Your task to perform on an android device: Clear all items from cart on target. Add macbook to the cart on target Image 0: 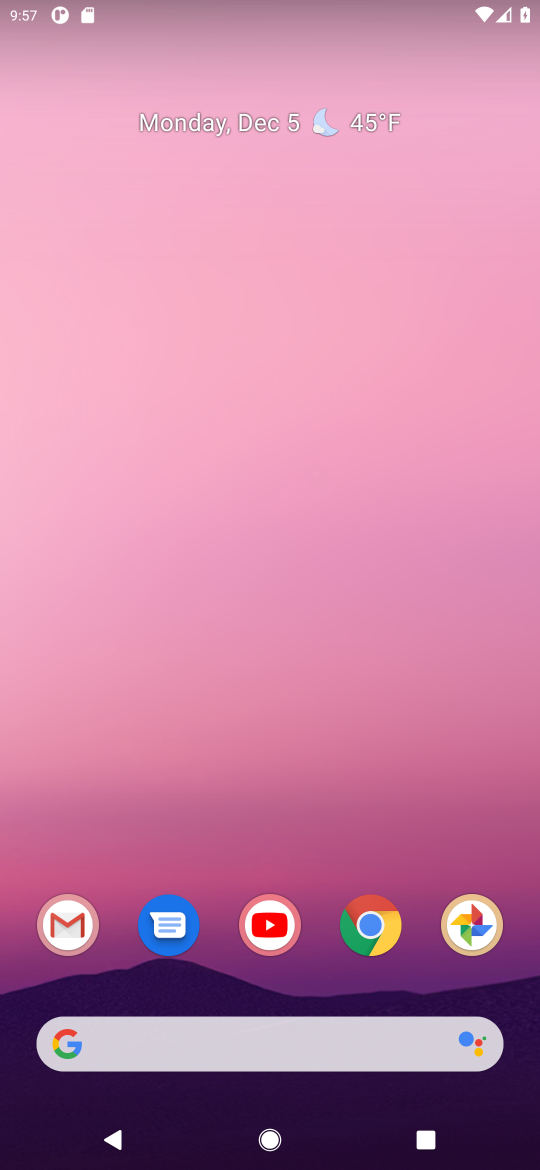
Step 0: click (373, 929)
Your task to perform on an android device: Clear all items from cart on target. Add macbook to the cart on target Image 1: 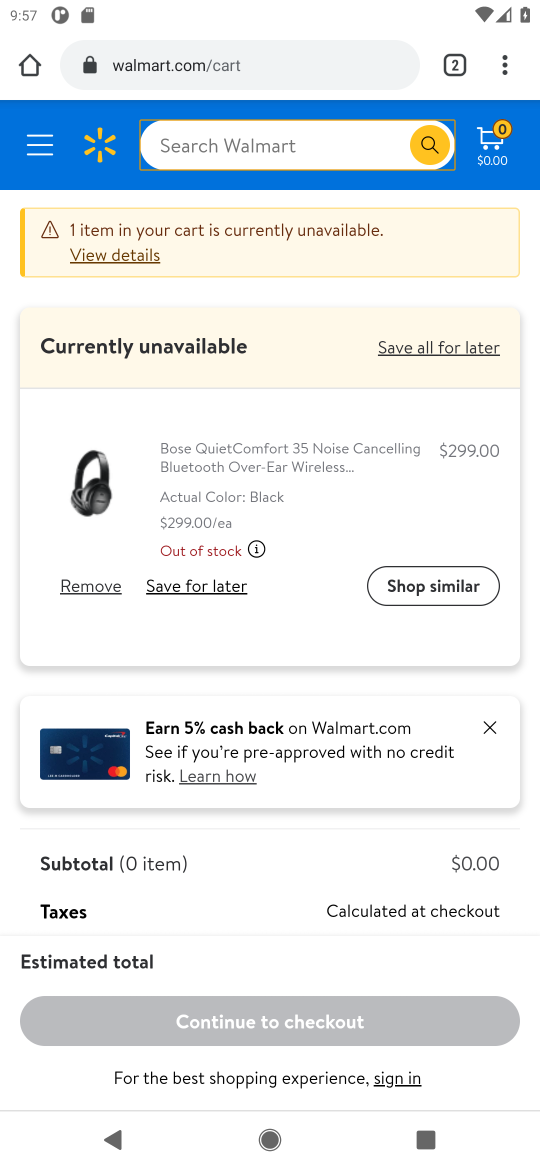
Step 1: click (147, 67)
Your task to perform on an android device: Clear all items from cart on target. Add macbook to the cart on target Image 2: 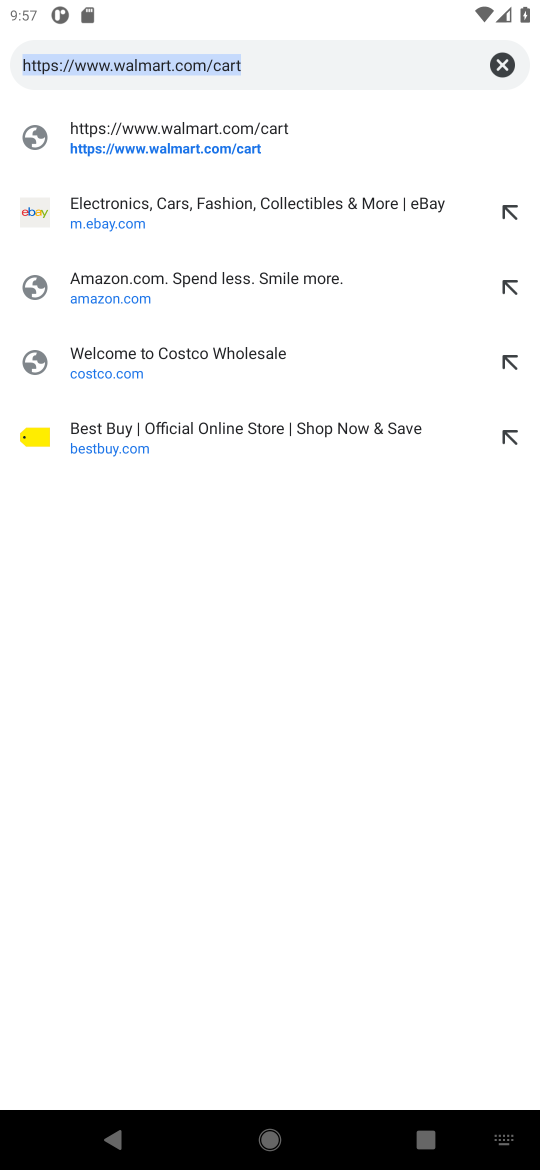
Step 2: type "target.com"
Your task to perform on an android device: Clear all items from cart on target. Add macbook to the cart on target Image 3: 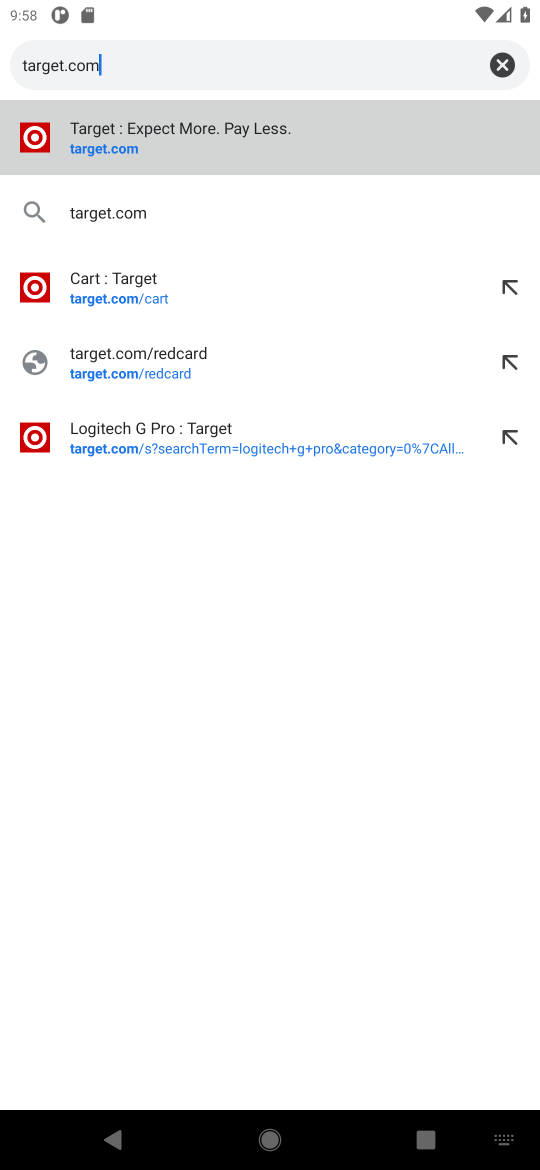
Step 3: click (96, 155)
Your task to perform on an android device: Clear all items from cart on target. Add macbook to the cart on target Image 4: 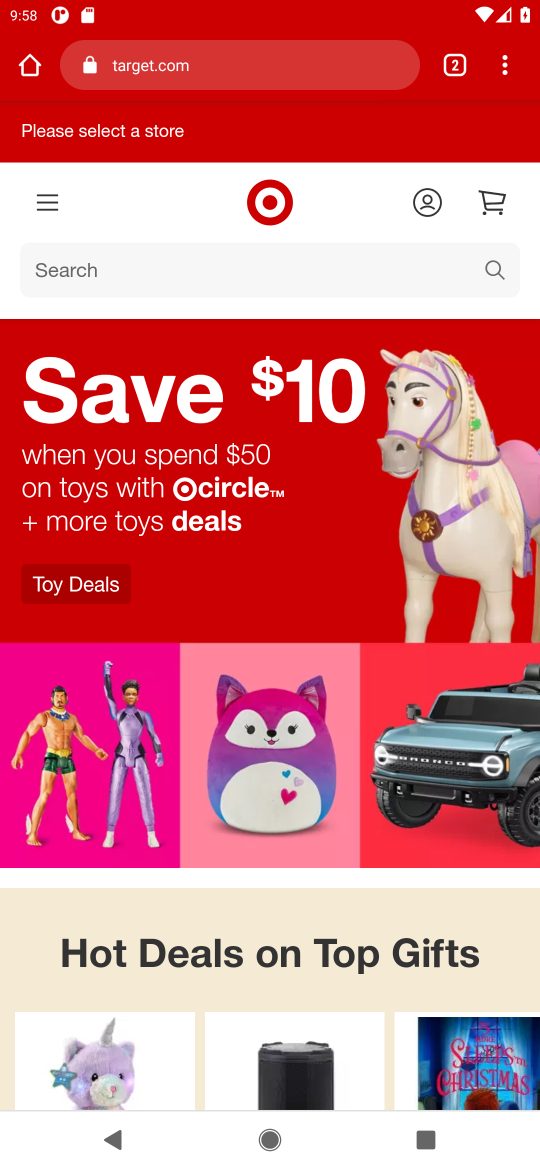
Step 4: click (485, 205)
Your task to perform on an android device: Clear all items from cart on target. Add macbook to the cart on target Image 5: 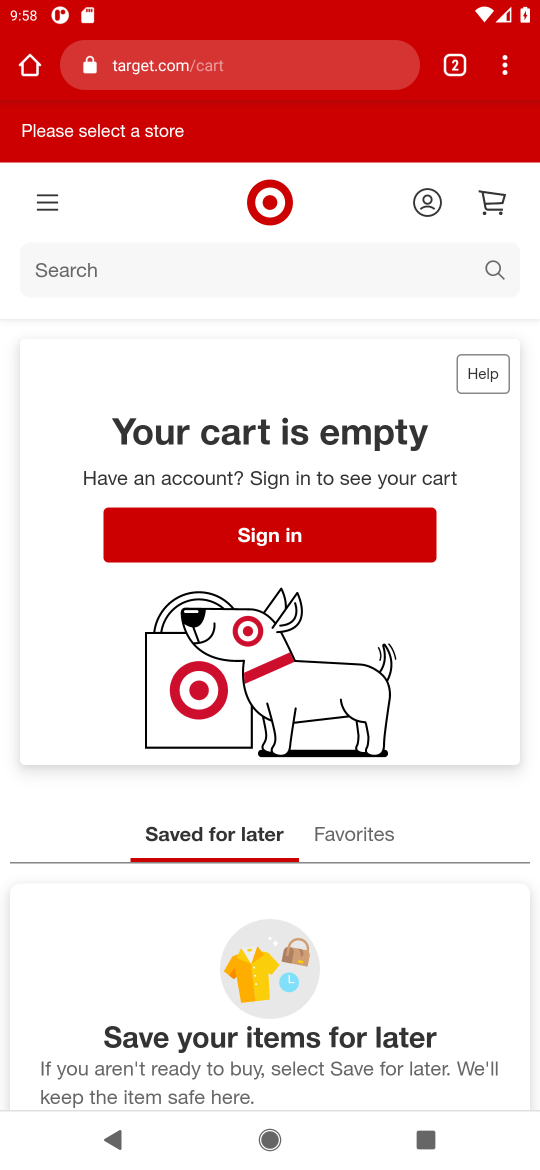
Step 5: click (62, 277)
Your task to perform on an android device: Clear all items from cart on target. Add macbook to the cart on target Image 6: 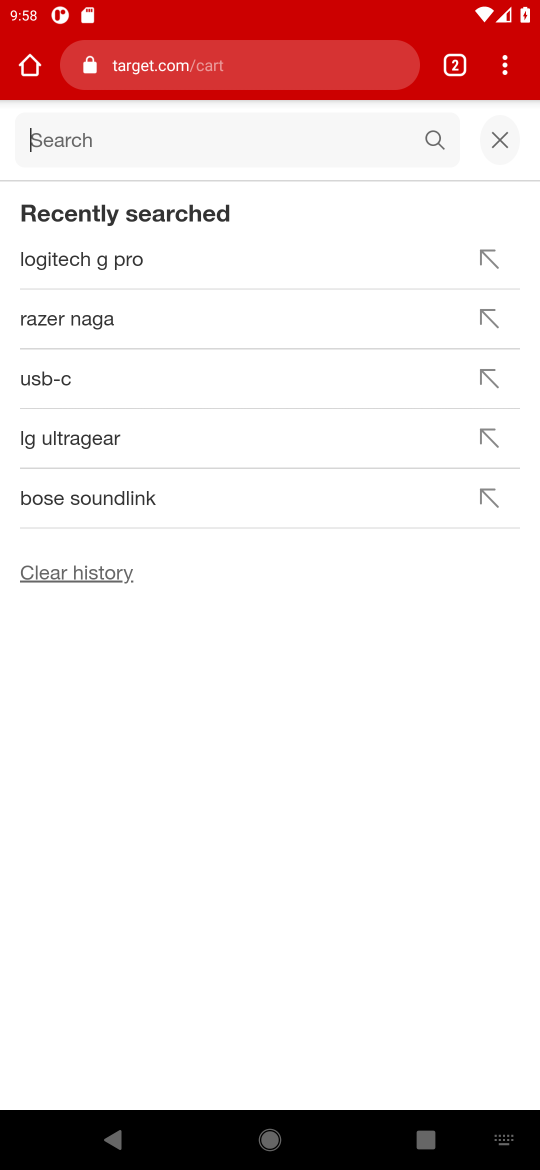
Step 6: type "macbook"
Your task to perform on an android device: Clear all items from cart on target. Add macbook to the cart on target Image 7: 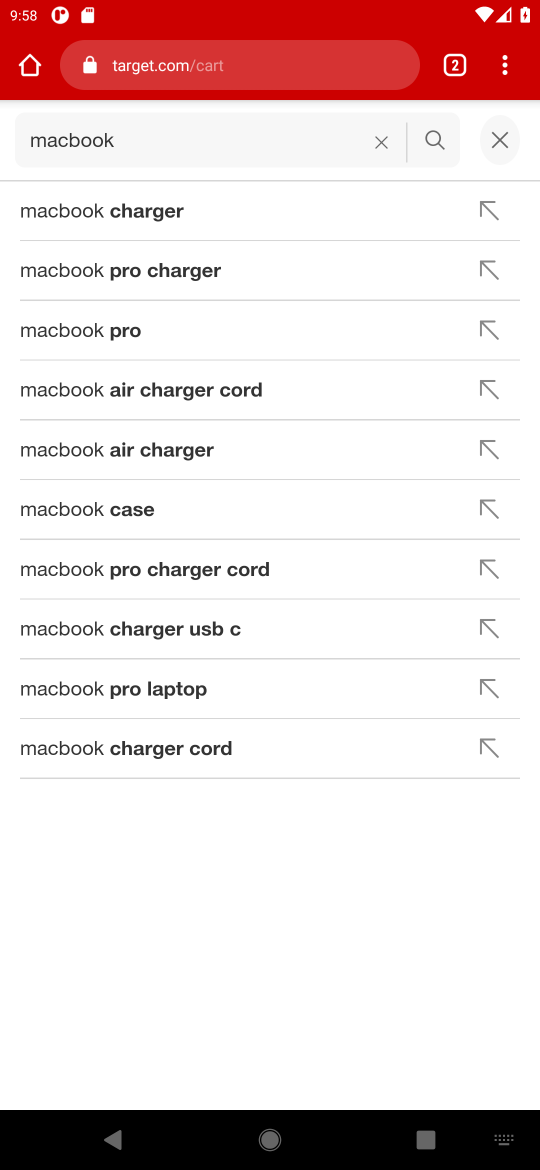
Step 7: click (435, 144)
Your task to perform on an android device: Clear all items from cart on target. Add macbook to the cart on target Image 8: 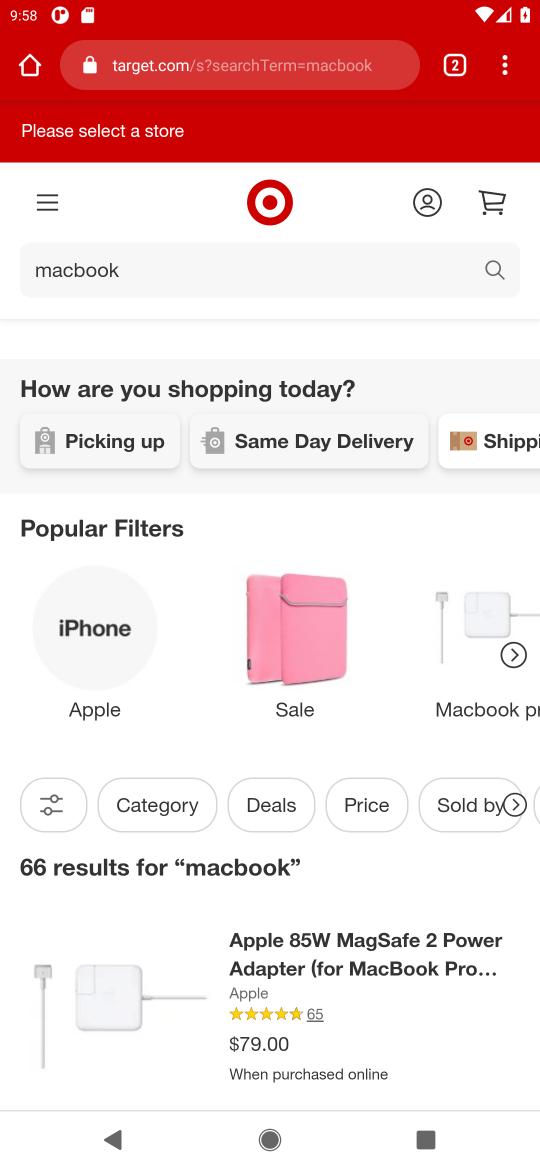
Step 8: drag from (305, 851) to (309, 506)
Your task to perform on an android device: Clear all items from cart on target. Add macbook to the cart on target Image 9: 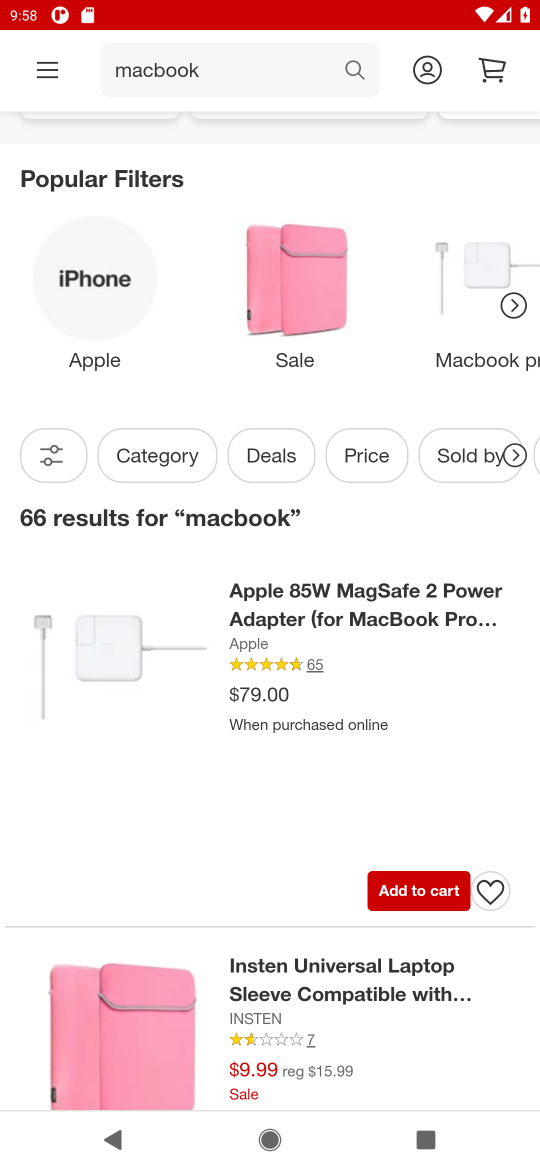
Step 9: drag from (255, 758) to (257, 537)
Your task to perform on an android device: Clear all items from cart on target. Add macbook to the cart on target Image 10: 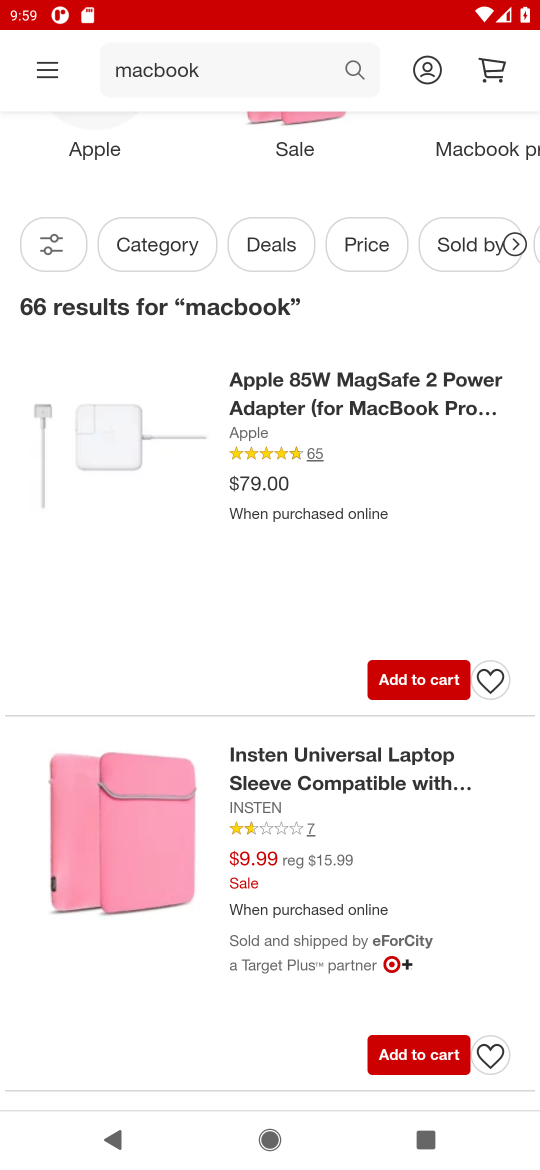
Step 10: click (407, 684)
Your task to perform on an android device: Clear all items from cart on target. Add macbook to the cart on target Image 11: 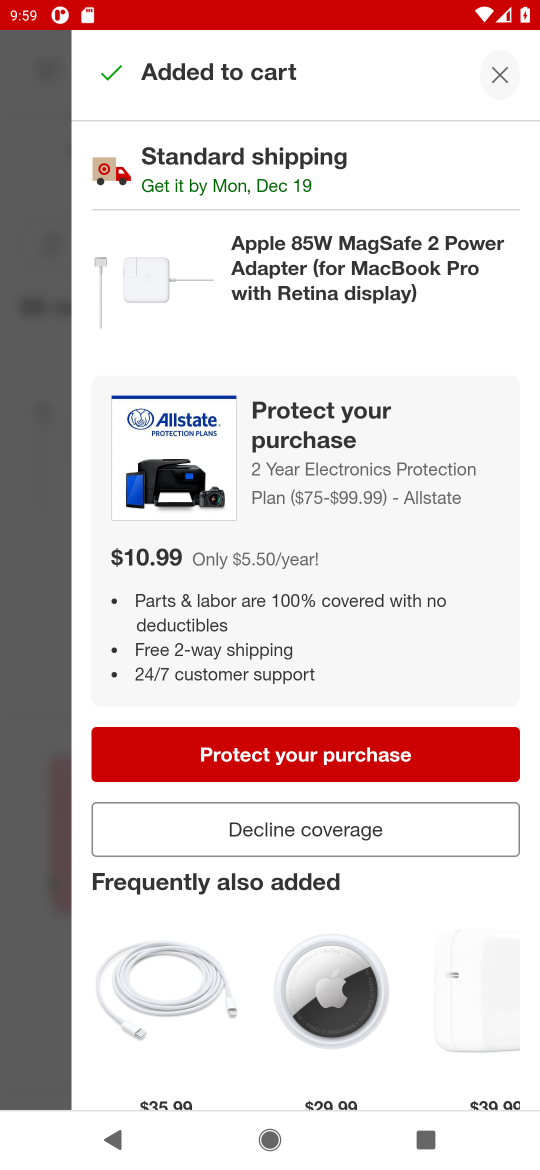
Step 11: task complete